Your task to perform on an android device: install app "Google Maps" Image 0: 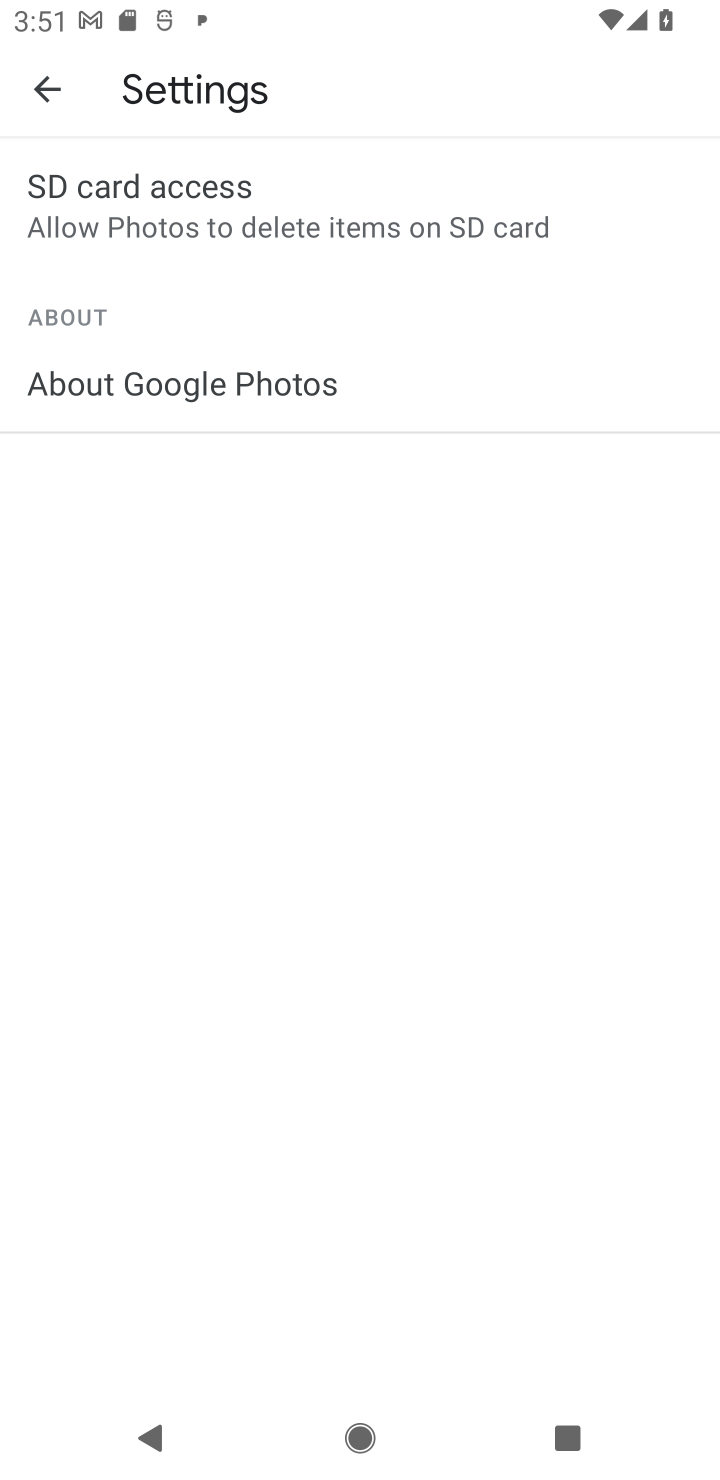
Step 0: press home button
Your task to perform on an android device: install app "Google Maps" Image 1: 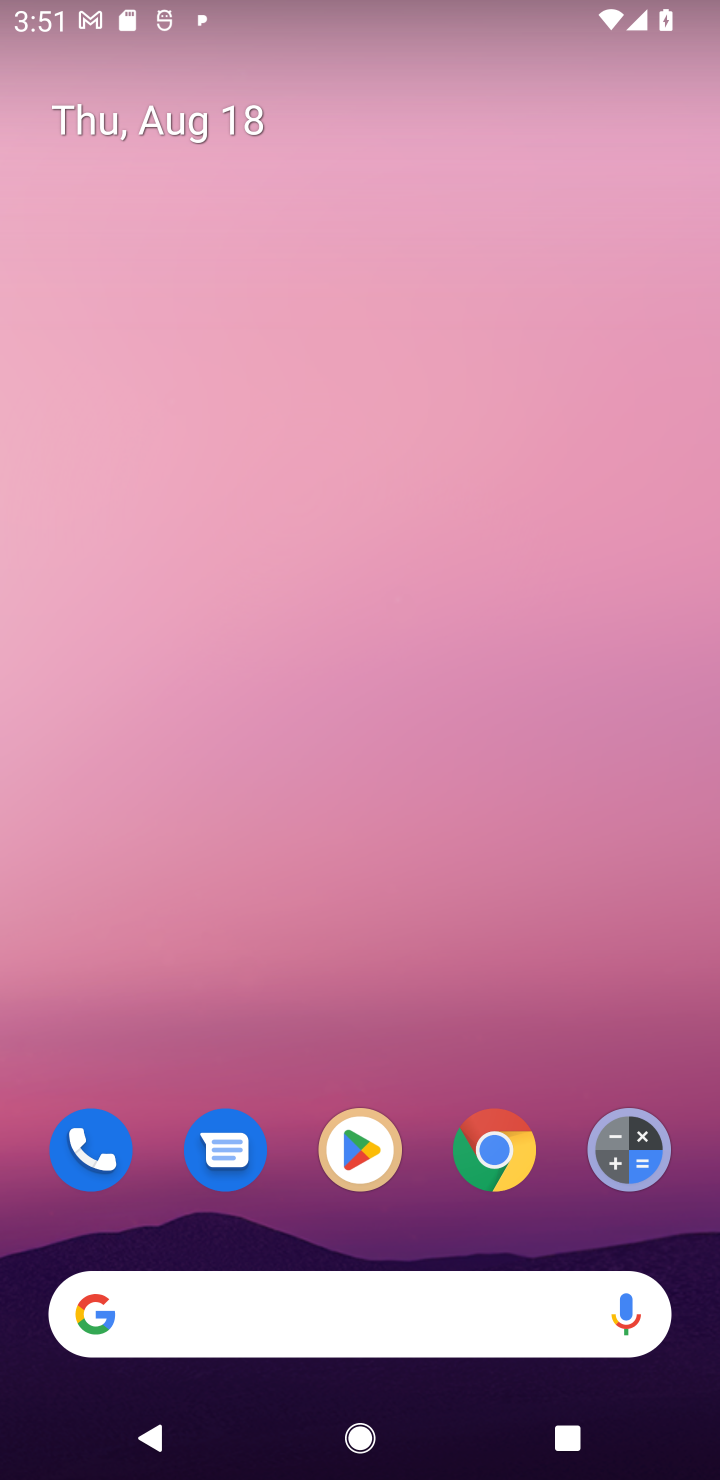
Step 1: drag from (428, 1219) to (426, 304)
Your task to perform on an android device: install app "Google Maps" Image 2: 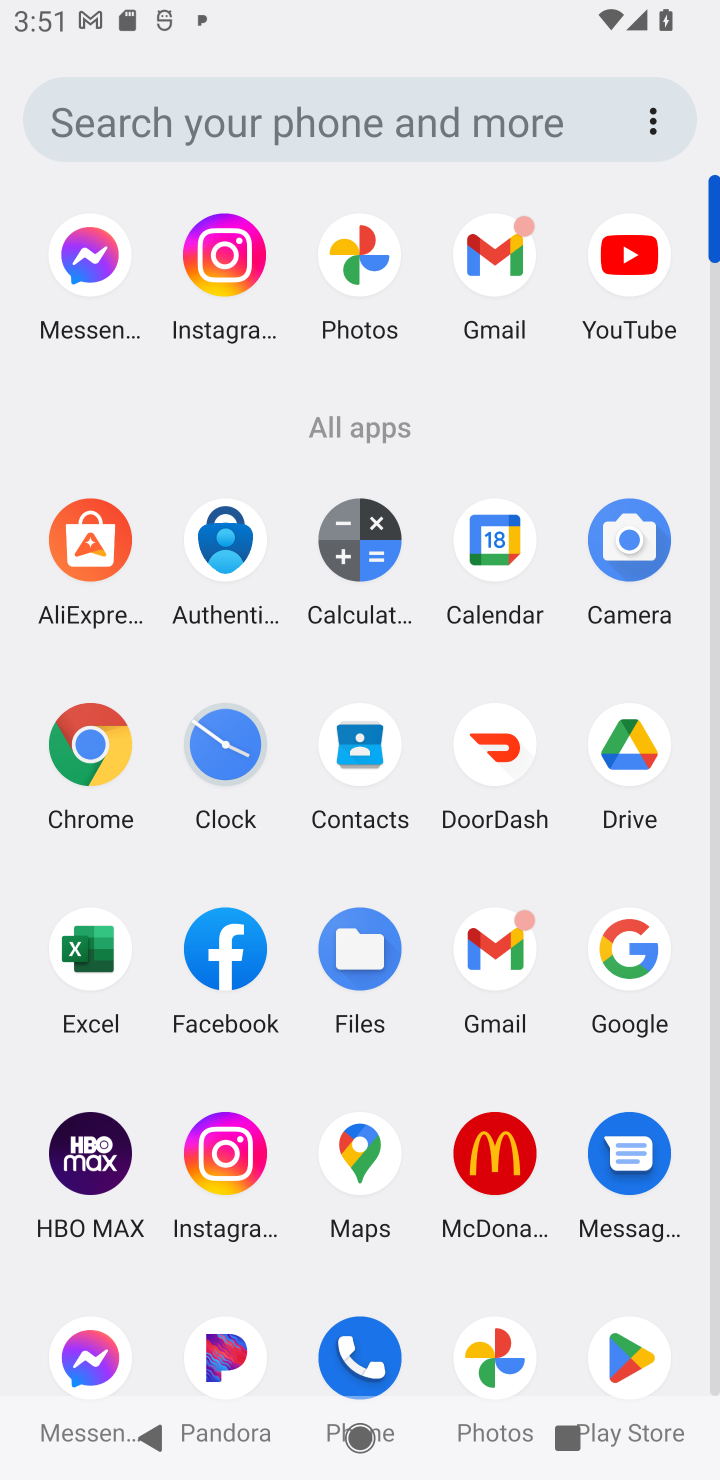
Step 2: click (359, 1162)
Your task to perform on an android device: install app "Google Maps" Image 3: 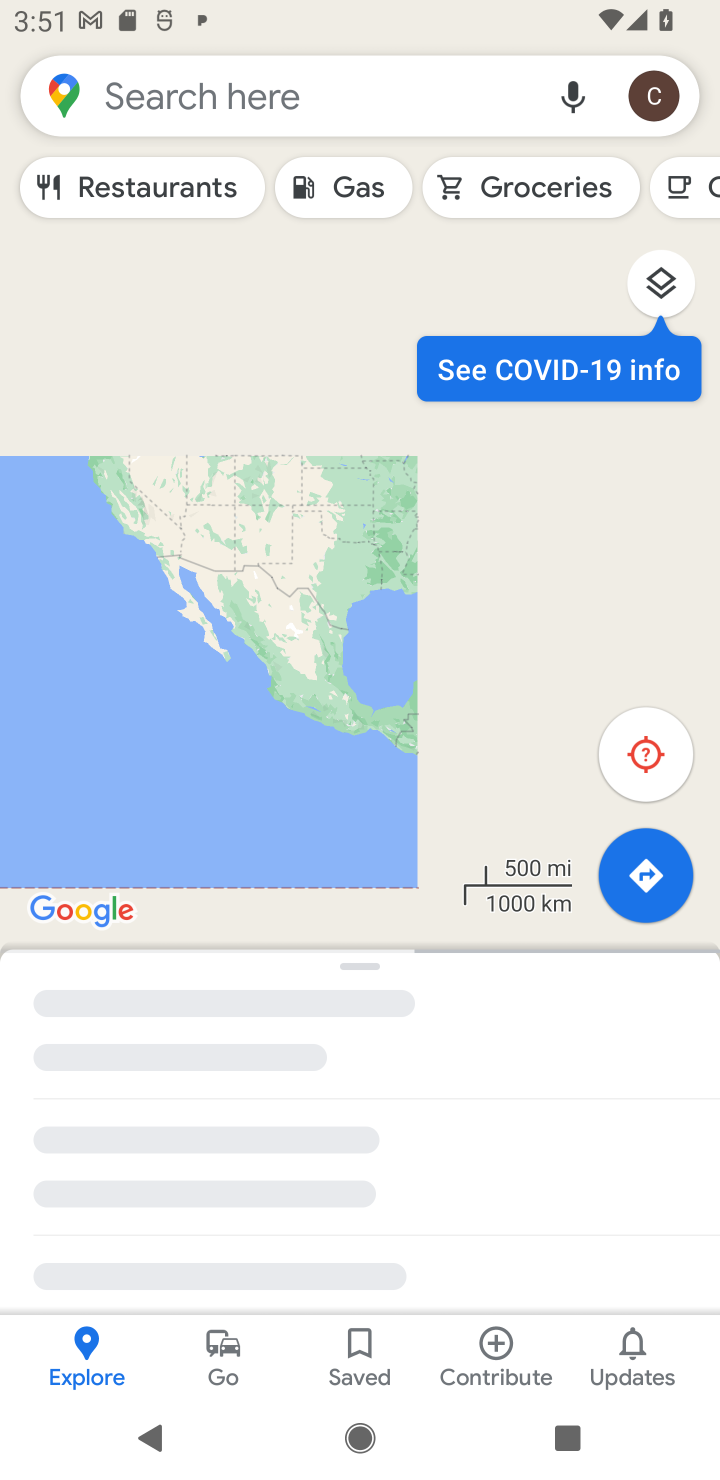
Step 3: task complete